Your task to perform on an android device: Open Google Chrome and open the bookmarks view Image 0: 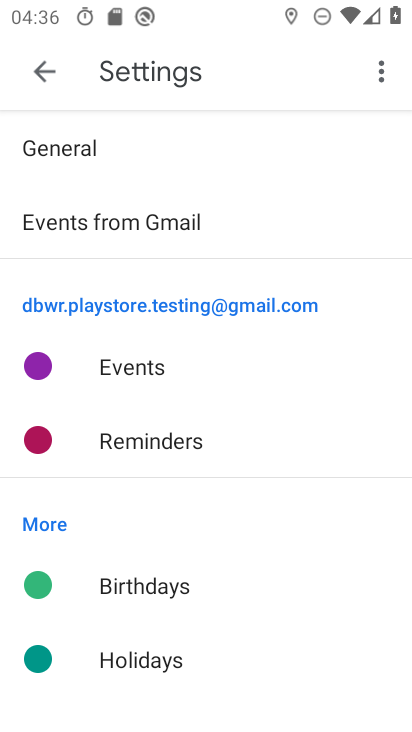
Step 0: press home button
Your task to perform on an android device: Open Google Chrome and open the bookmarks view Image 1: 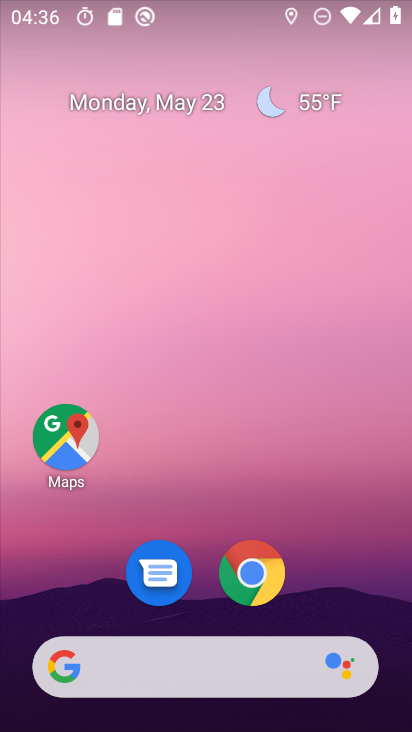
Step 1: click (249, 576)
Your task to perform on an android device: Open Google Chrome and open the bookmarks view Image 2: 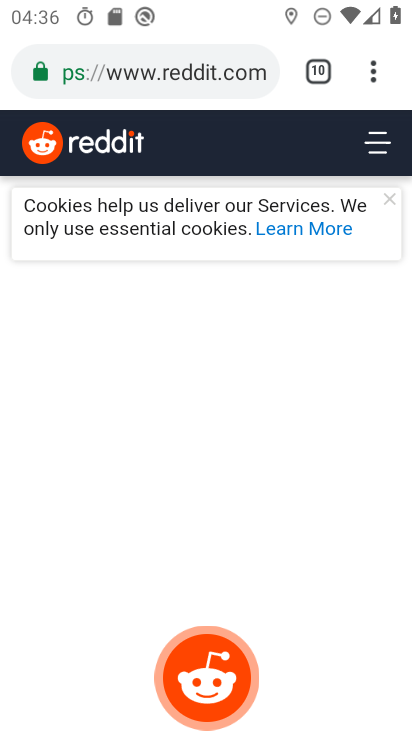
Step 2: click (373, 63)
Your task to perform on an android device: Open Google Chrome and open the bookmarks view Image 3: 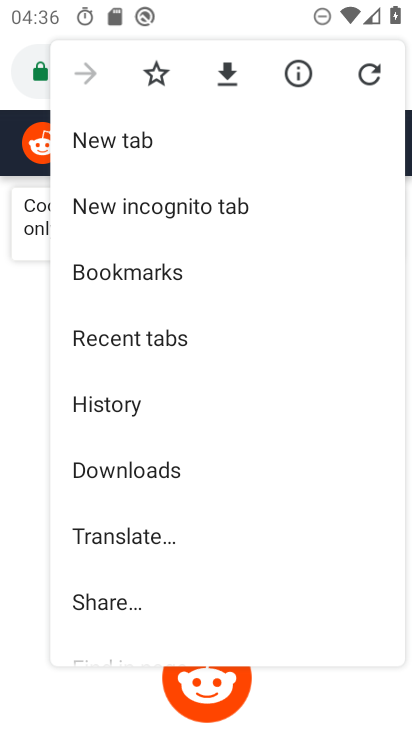
Step 3: click (153, 278)
Your task to perform on an android device: Open Google Chrome and open the bookmarks view Image 4: 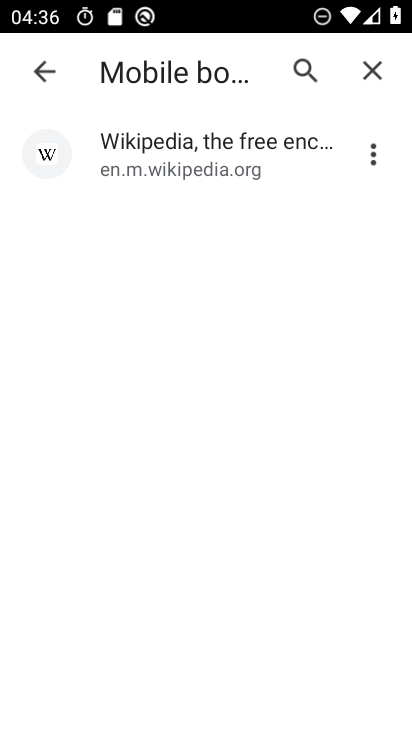
Step 4: task complete